Your task to perform on an android device: Go to privacy settings Image 0: 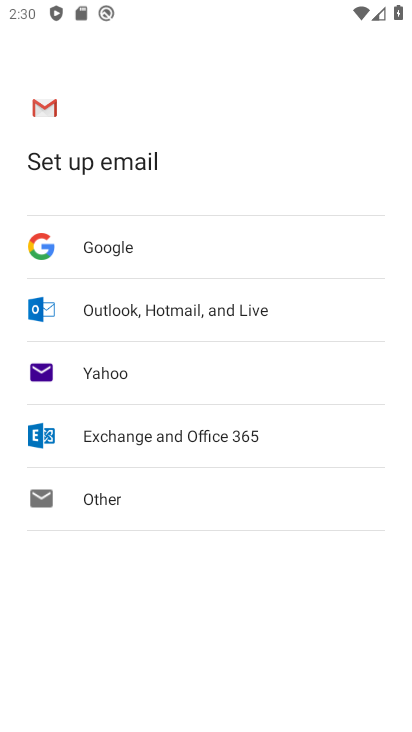
Step 0: press home button
Your task to perform on an android device: Go to privacy settings Image 1: 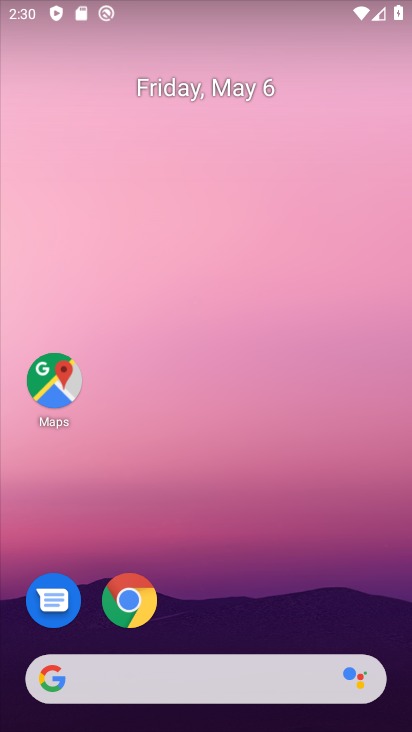
Step 1: drag from (216, 604) to (224, 236)
Your task to perform on an android device: Go to privacy settings Image 2: 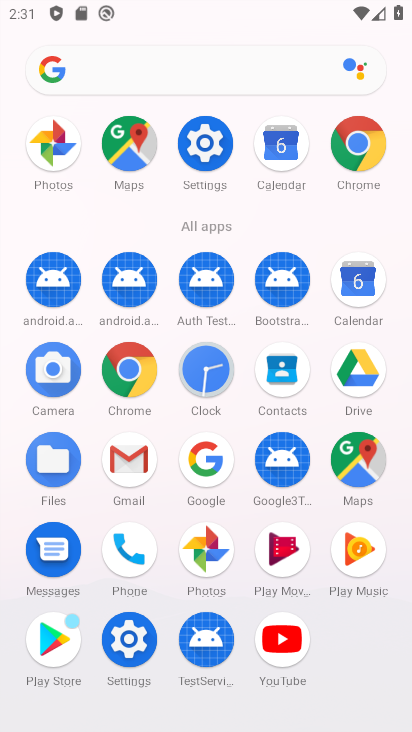
Step 2: click (136, 634)
Your task to perform on an android device: Go to privacy settings Image 3: 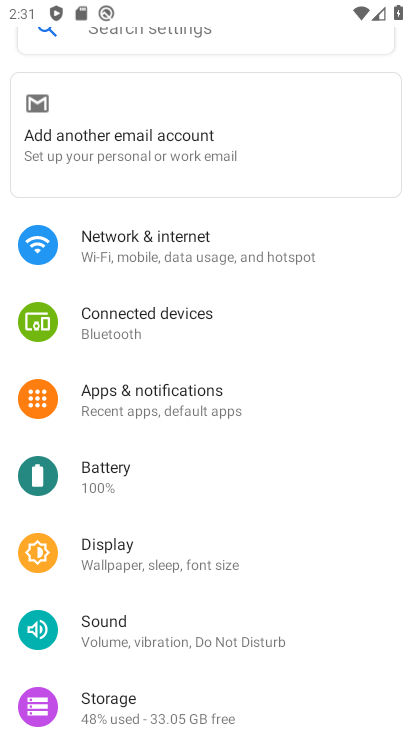
Step 3: drag from (159, 640) to (138, 170)
Your task to perform on an android device: Go to privacy settings Image 4: 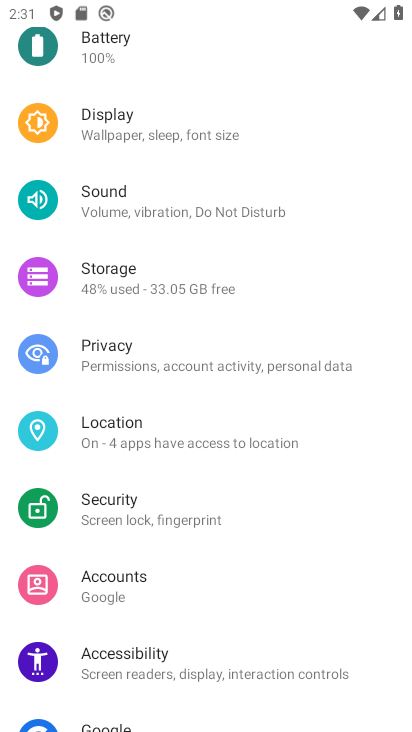
Step 4: drag from (163, 559) to (174, 434)
Your task to perform on an android device: Go to privacy settings Image 5: 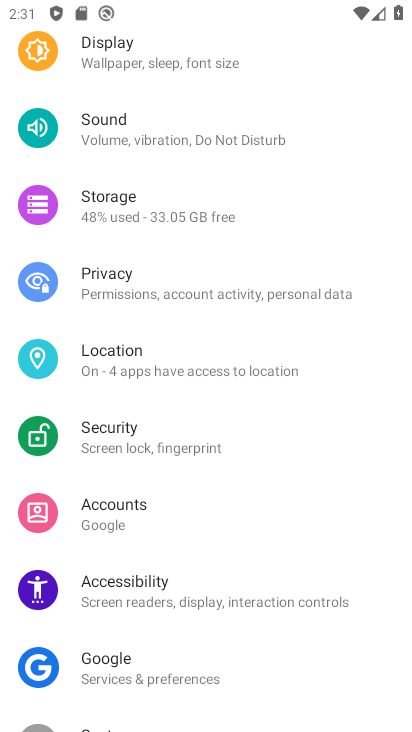
Step 5: click (197, 287)
Your task to perform on an android device: Go to privacy settings Image 6: 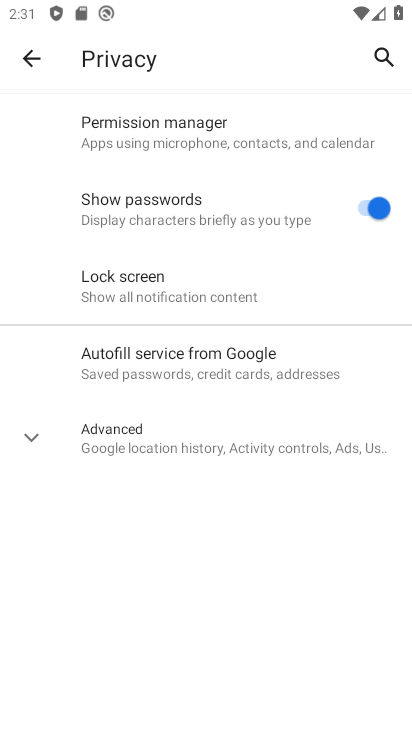
Step 6: task complete